Your task to perform on an android device: turn notification dots off Image 0: 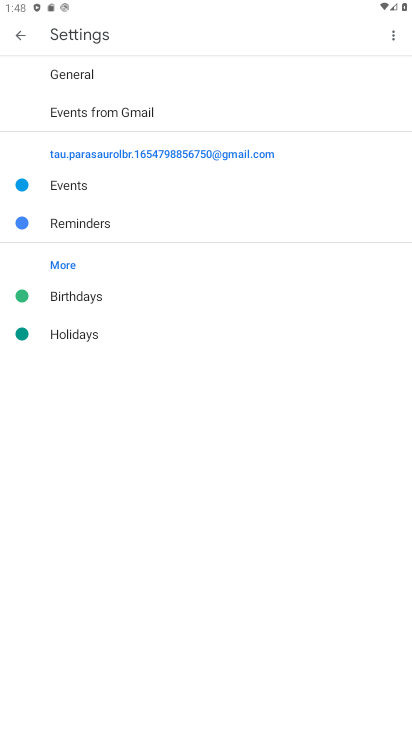
Step 0: press home button
Your task to perform on an android device: turn notification dots off Image 1: 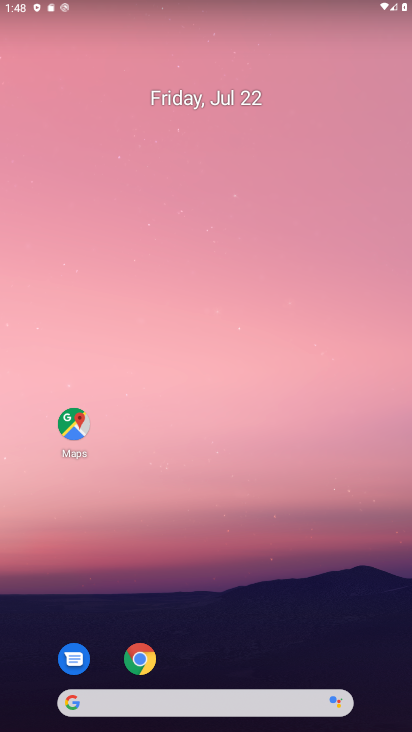
Step 1: drag from (278, 615) to (181, 40)
Your task to perform on an android device: turn notification dots off Image 2: 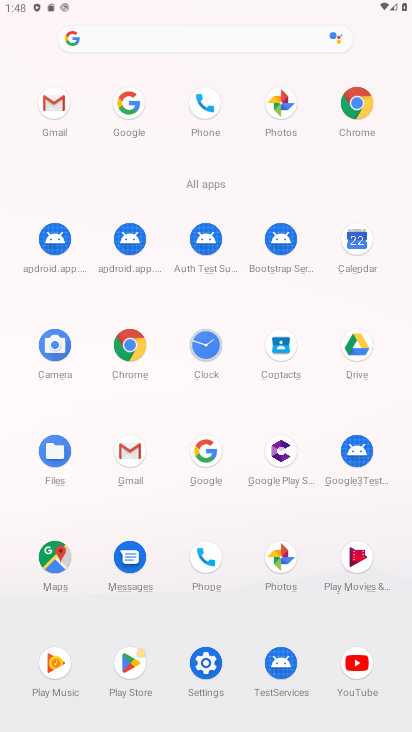
Step 2: click (201, 663)
Your task to perform on an android device: turn notification dots off Image 3: 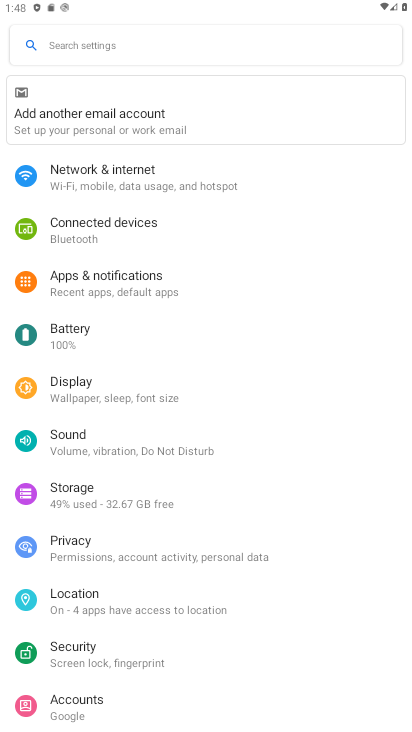
Step 3: click (187, 291)
Your task to perform on an android device: turn notification dots off Image 4: 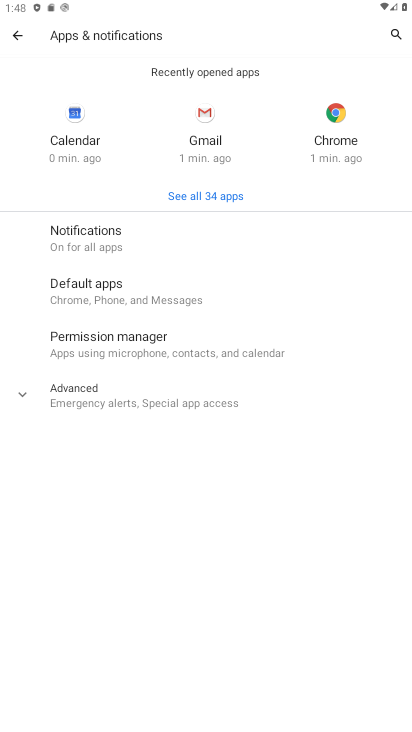
Step 4: click (122, 233)
Your task to perform on an android device: turn notification dots off Image 5: 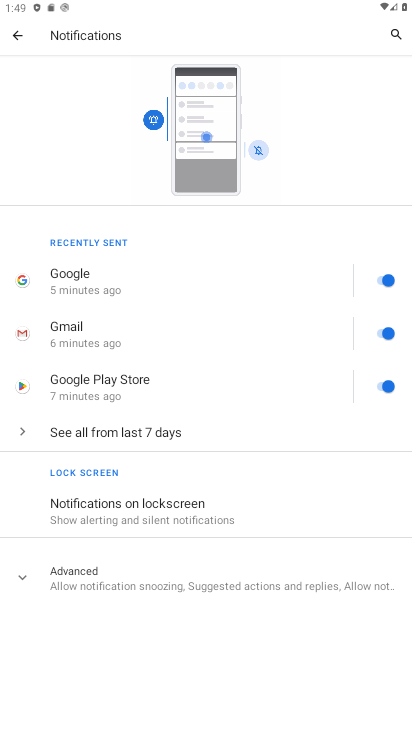
Step 5: click (180, 578)
Your task to perform on an android device: turn notification dots off Image 6: 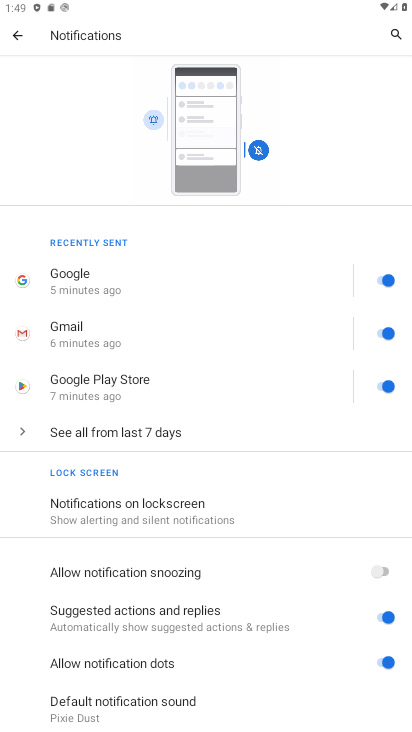
Step 6: click (385, 664)
Your task to perform on an android device: turn notification dots off Image 7: 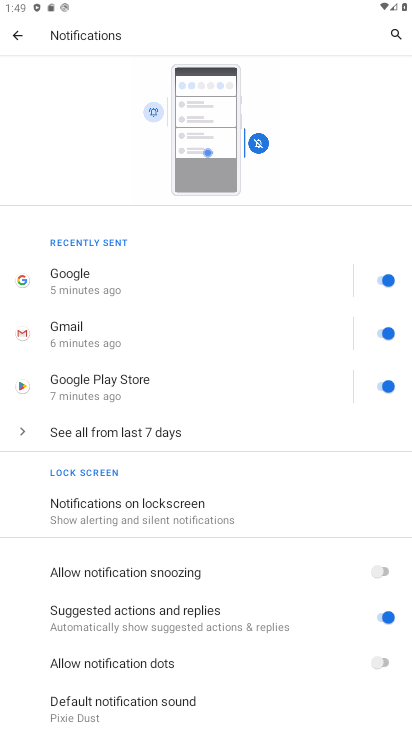
Step 7: task complete